Your task to perform on an android device: install app "Google Drive" Image 0: 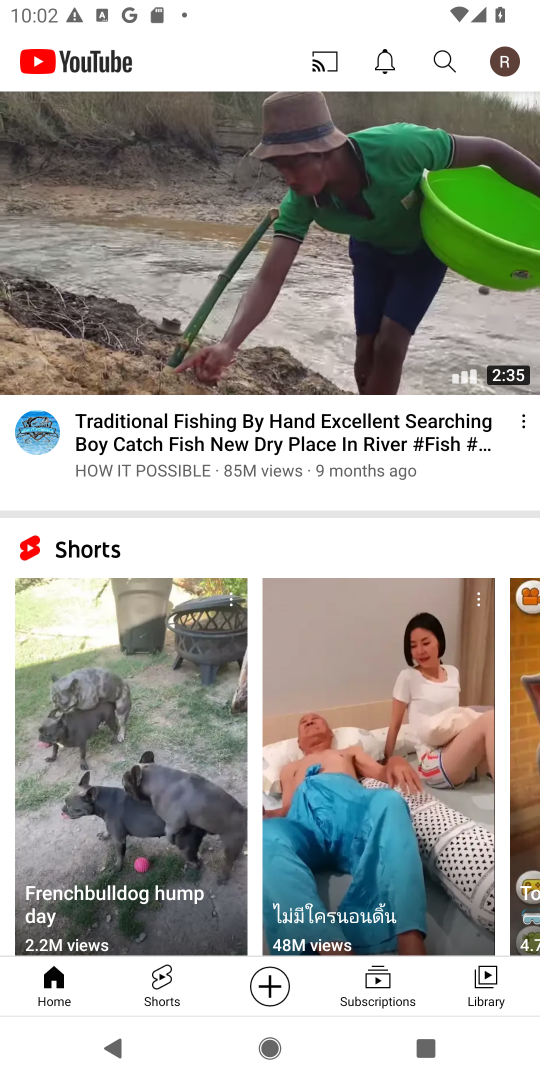
Step 0: press home button
Your task to perform on an android device: install app "Google Drive" Image 1: 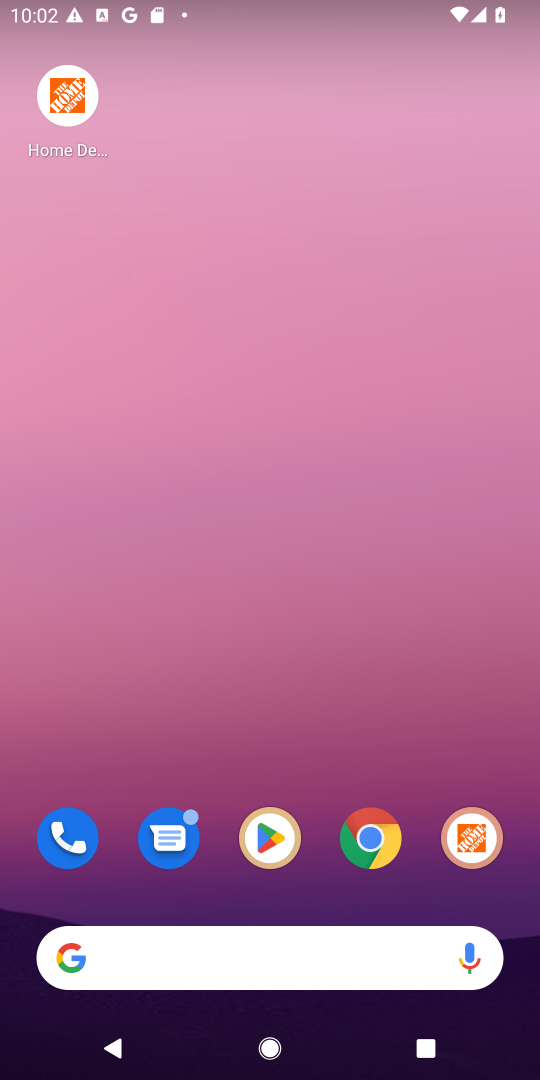
Step 1: click (254, 835)
Your task to perform on an android device: install app "Google Drive" Image 2: 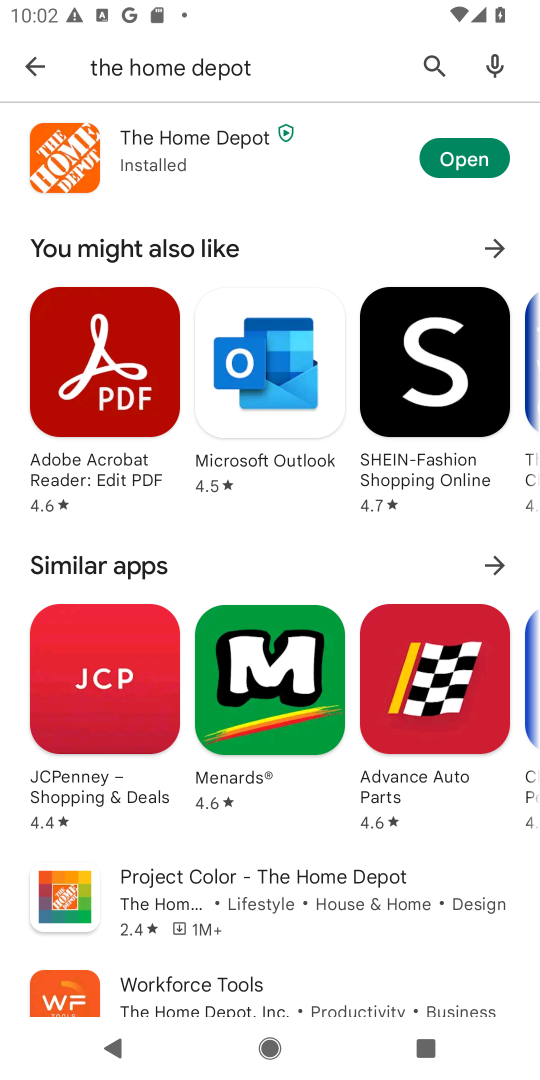
Step 2: click (435, 62)
Your task to perform on an android device: install app "Google Drive" Image 3: 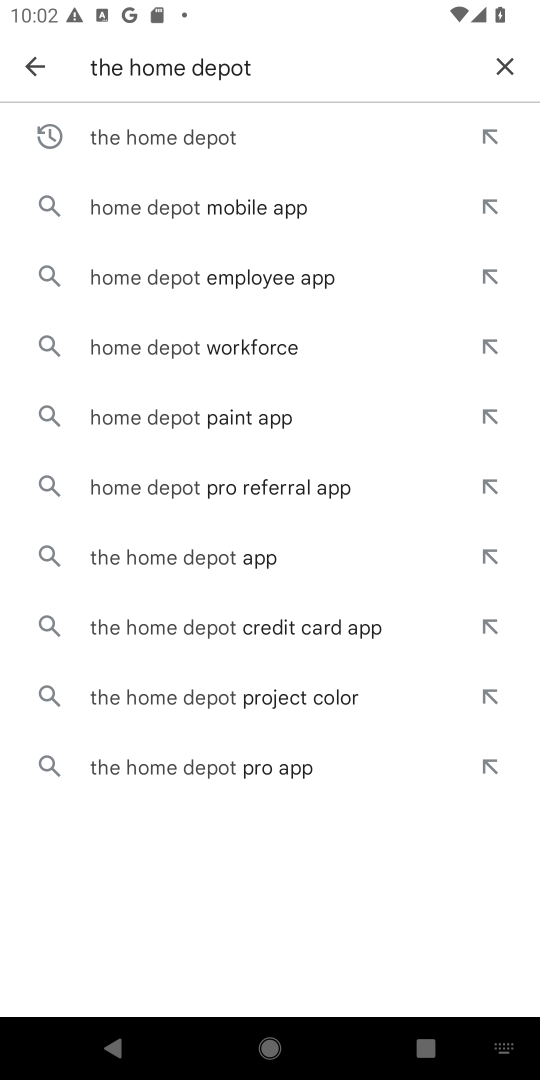
Step 3: click (494, 54)
Your task to perform on an android device: install app "Google Drive" Image 4: 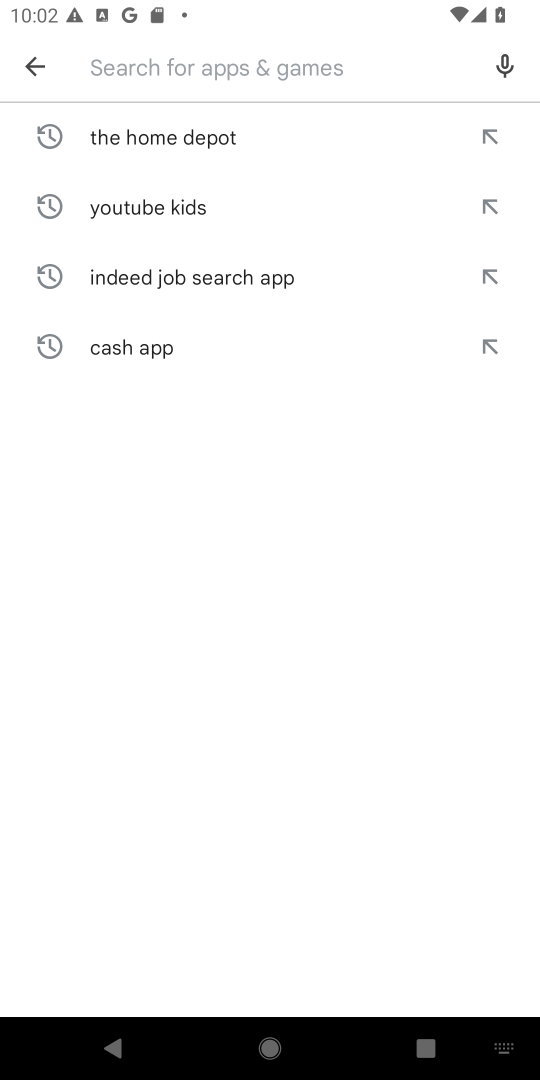
Step 4: type "Google Drive"
Your task to perform on an android device: install app "Google Drive" Image 5: 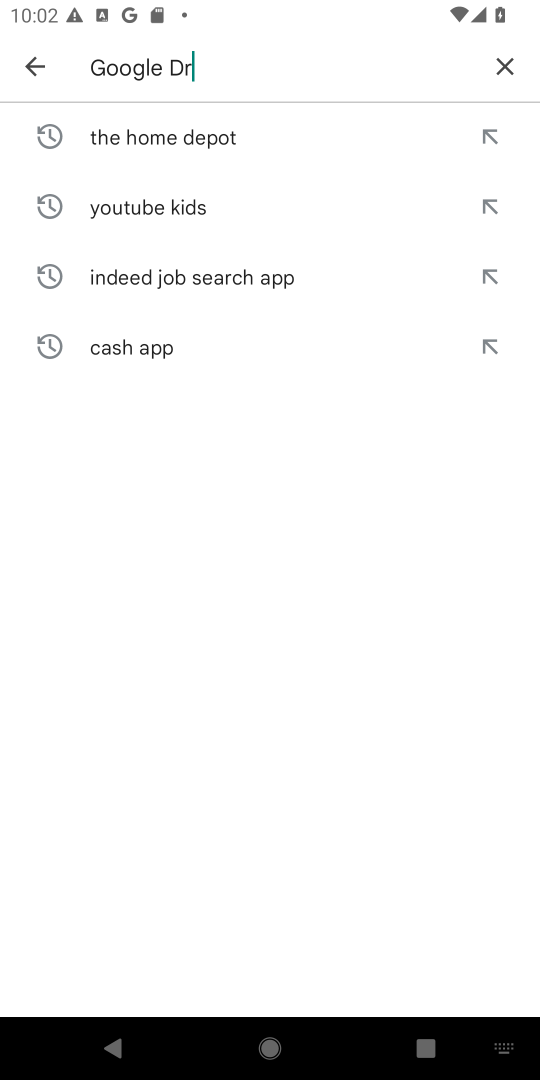
Step 5: type ""
Your task to perform on an android device: install app "Google Drive" Image 6: 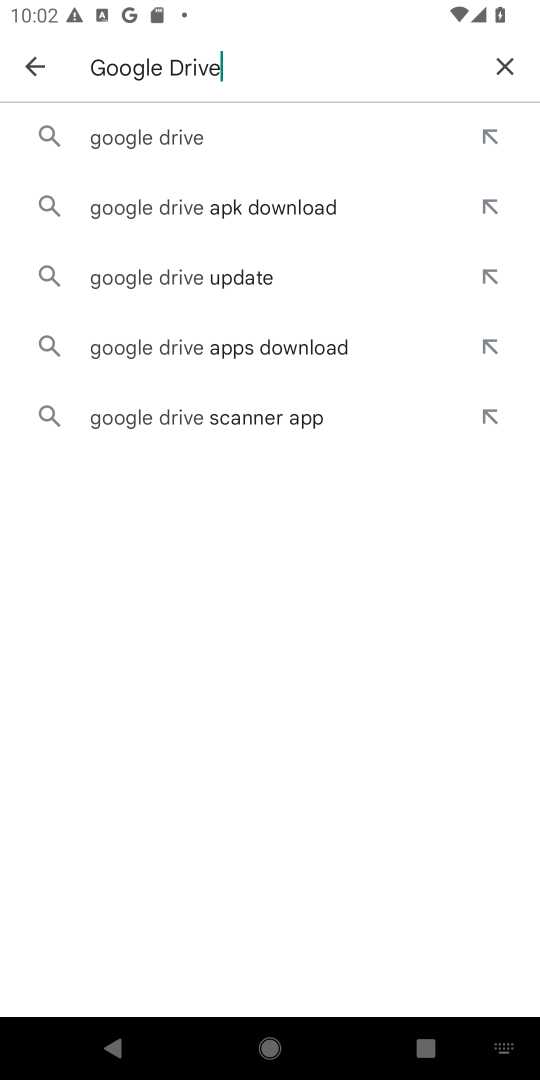
Step 6: click (168, 143)
Your task to perform on an android device: install app "Google Drive" Image 7: 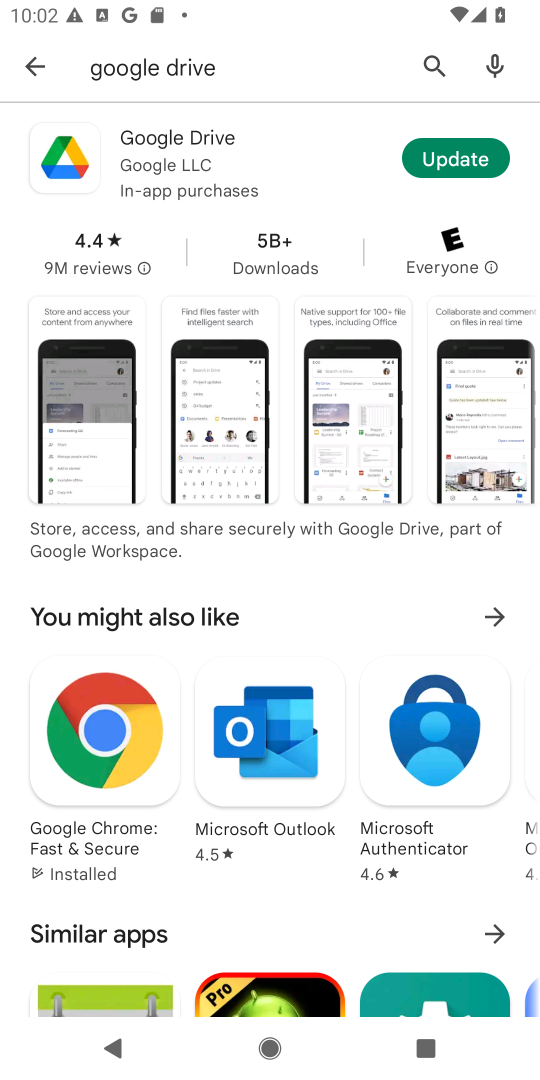
Step 7: click (269, 123)
Your task to perform on an android device: install app "Google Drive" Image 8: 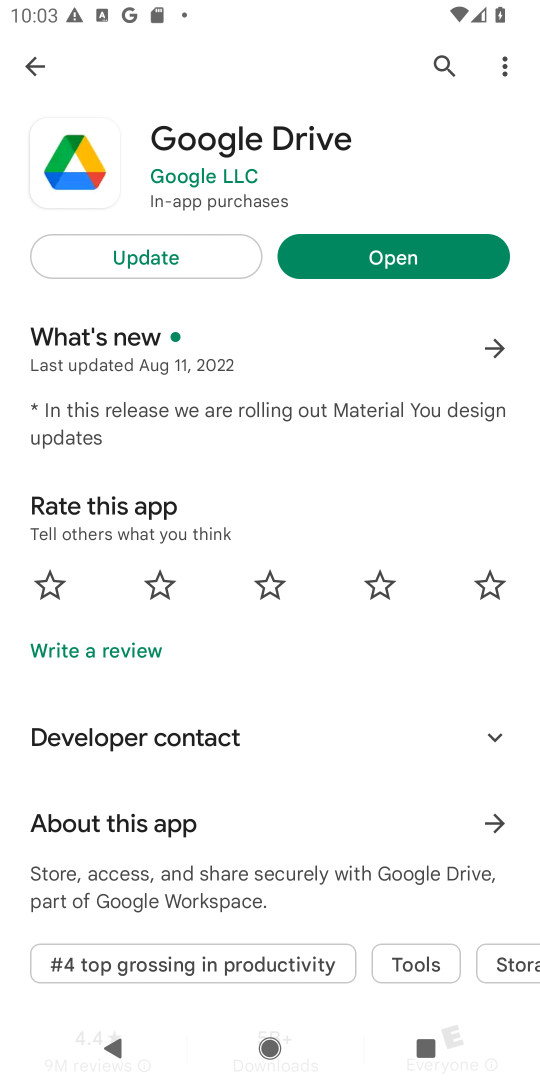
Step 8: task complete